Your task to perform on an android device: add a contact in the contacts app Image 0: 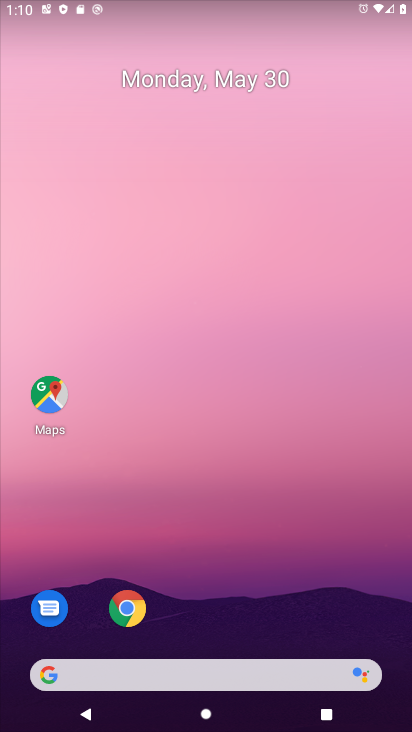
Step 0: drag from (194, 356) to (189, 179)
Your task to perform on an android device: add a contact in the contacts app Image 1: 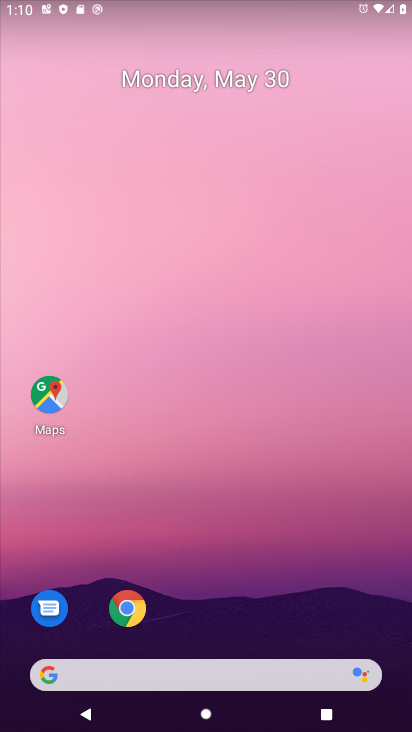
Step 1: drag from (220, 637) to (213, 285)
Your task to perform on an android device: add a contact in the contacts app Image 2: 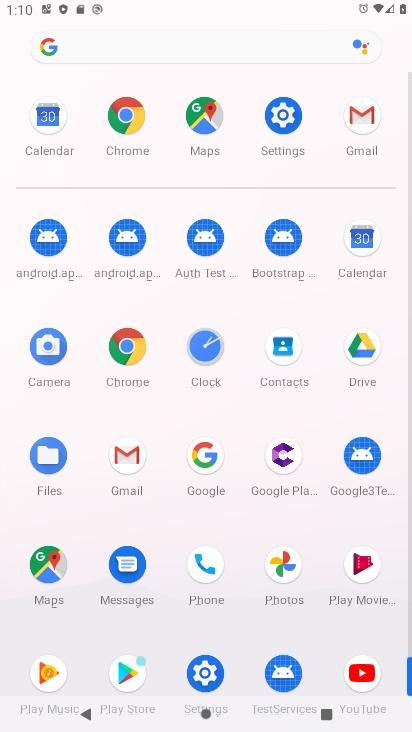
Step 2: click (278, 358)
Your task to perform on an android device: add a contact in the contacts app Image 3: 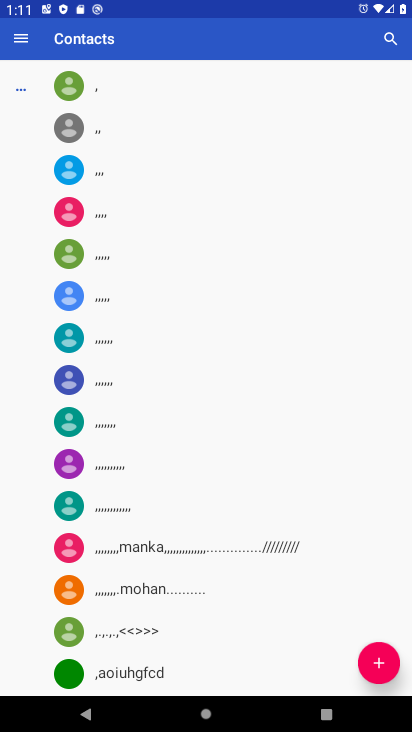
Step 3: click (371, 662)
Your task to perform on an android device: add a contact in the contacts app Image 4: 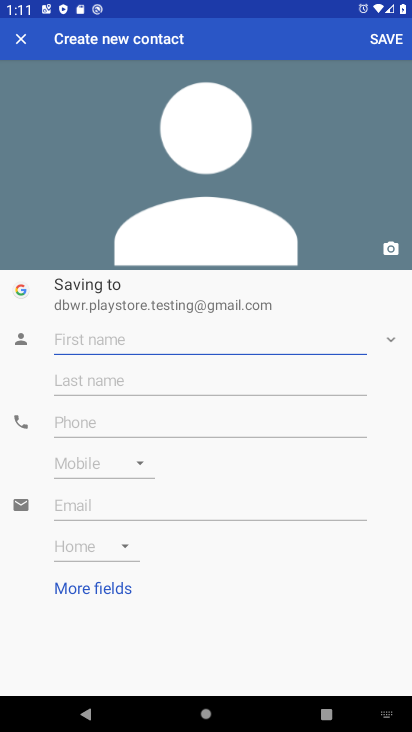
Step 4: type "srfghhgj"
Your task to perform on an android device: add a contact in the contacts app Image 5: 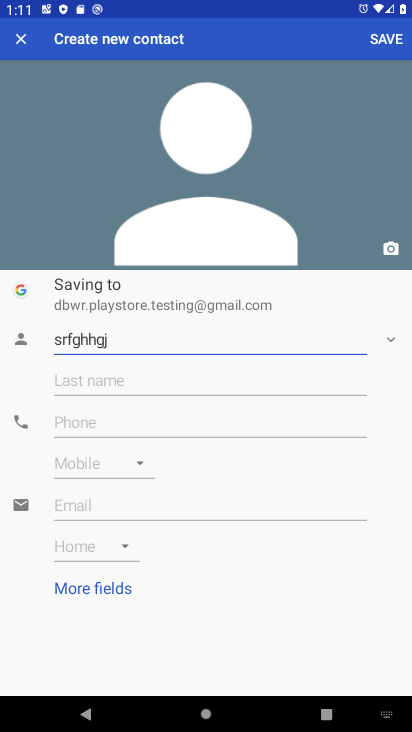
Step 5: click (167, 424)
Your task to perform on an android device: add a contact in the contacts app Image 6: 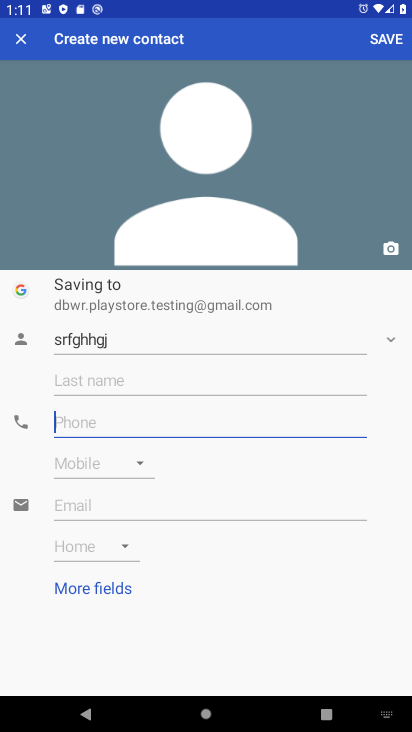
Step 6: type "98067134"
Your task to perform on an android device: add a contact in the contacts app Image 7: 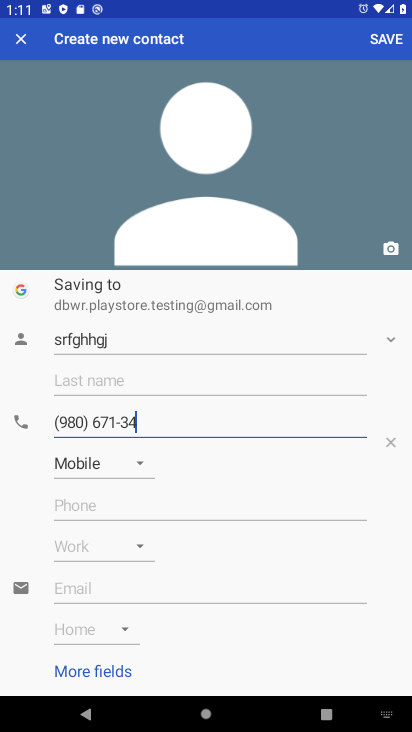
Step 7: click (391, 36)
Your task to perform on an android device: add a contact in the contacts app Image 8: 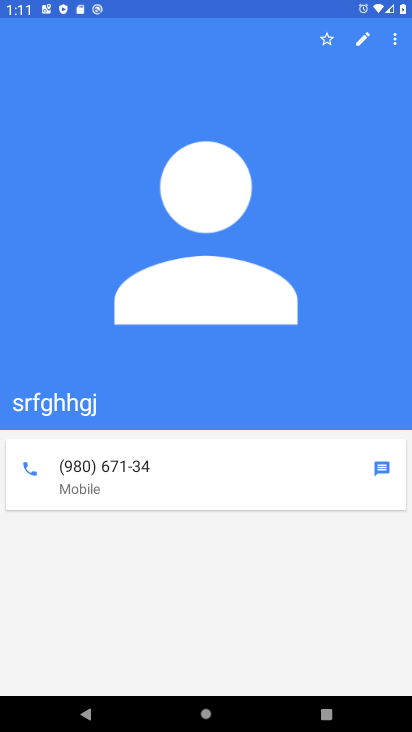
Step 8: task complete